Your task to perform on an android device: Open privacy settings Image 0: 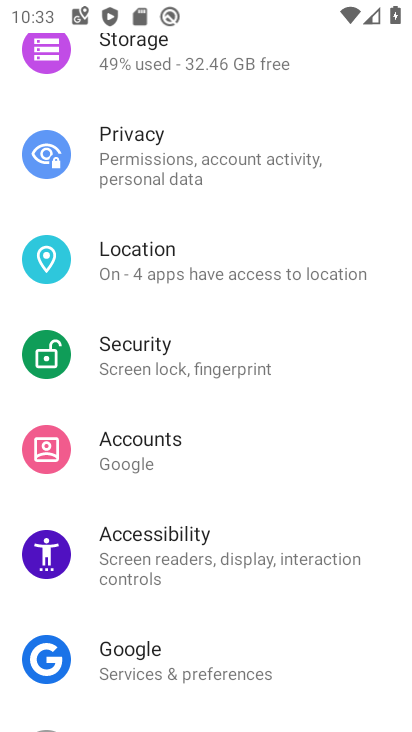
Step 0: click (175, 159)
Your task to perform on an android device: Open privacy settings Image 1: 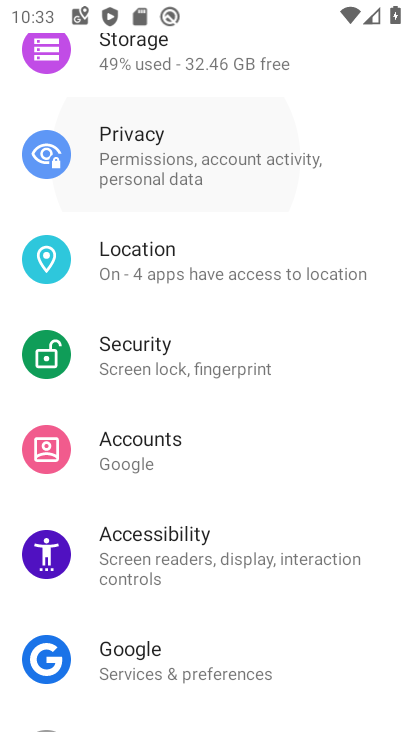
Step 1: click (176, 158)
Your task to perform on an android device: Open privacy settings Image 2: 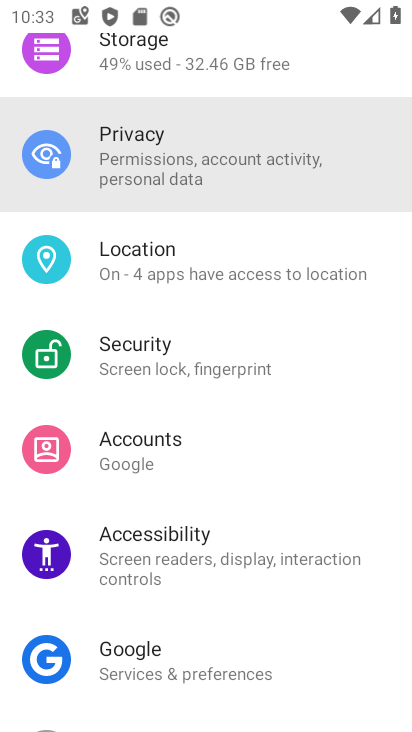
Step 2: click (177, 158)
Your task to perform on an android device: Open privacy settings Image 3: 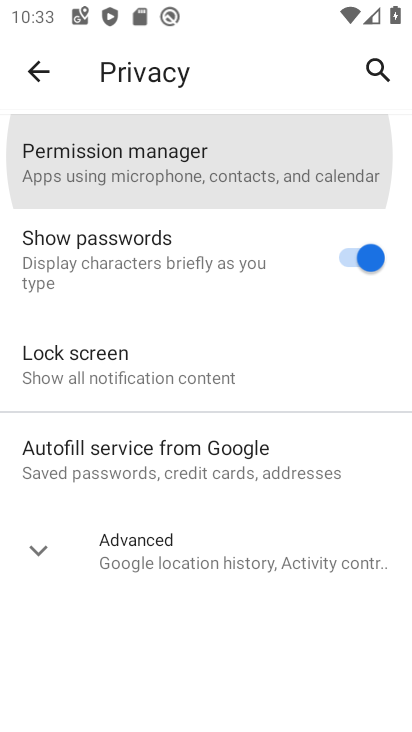
Step 3: click (179, 158)
Your task to perform on an android device: Open privacy settings Image 4: 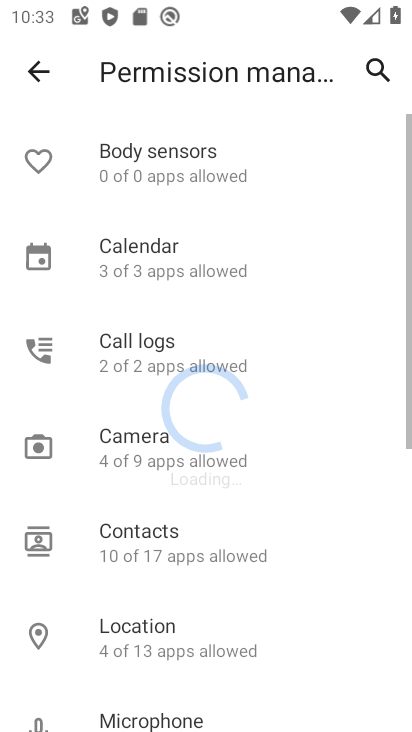
Step 4: task complete